Your task to perform on an android device: Open display settings Image 0: 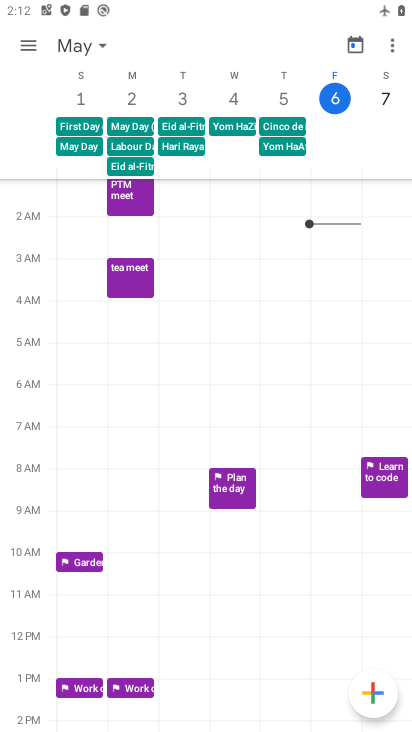
Step 0: press home button
Your task to perform on an android device: Open display settings Image 1: 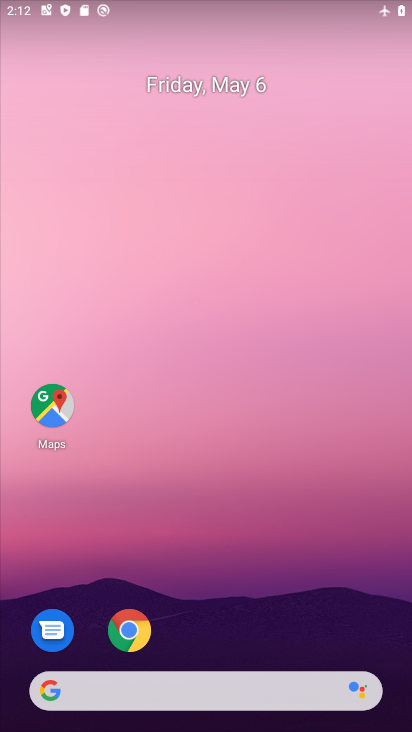
Step 1: drag from (199, 693) to (122, 150)
Your task to perform on an android device: Open display settings Image 2: 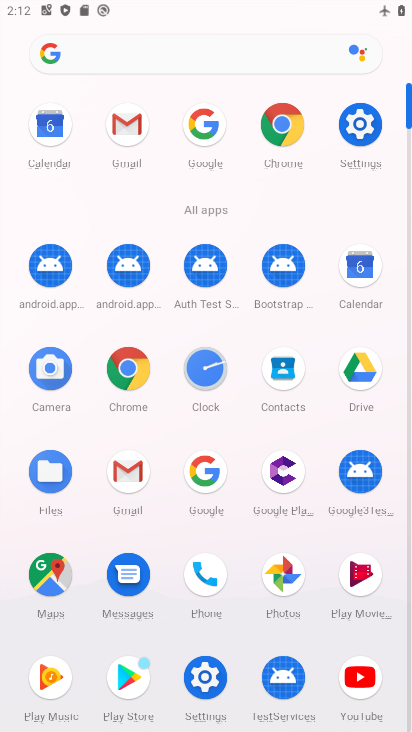
Step 2: click (356, 146)
Your task to perform on an android device: Open display settings Image 3: 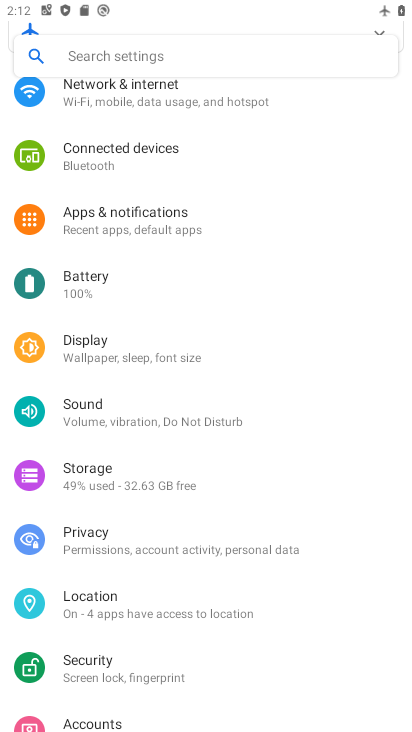
Step 3: click (134, 345)
Your task to perform on an android device: Open display settings Image 4: 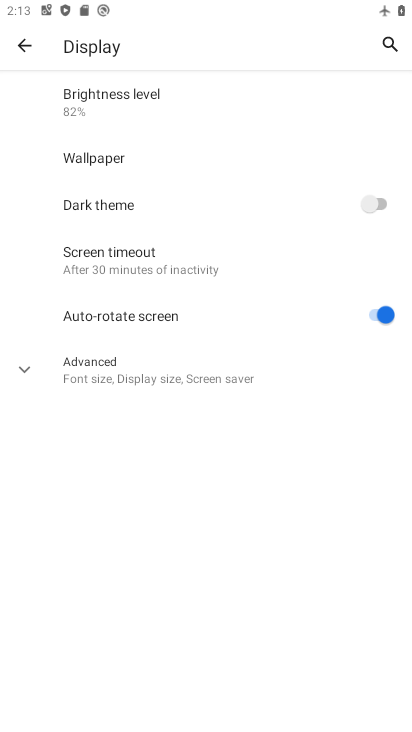
Step 4: task complete